Your task to perform on an android device: What's the weather? Image 0: 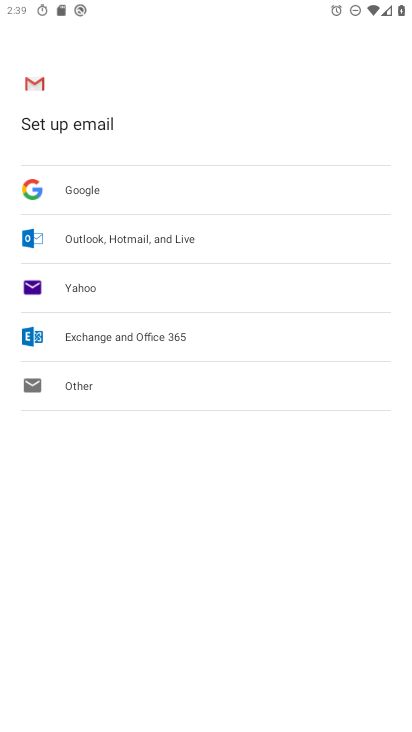
Step 0: press home button
Your task to perform on an android device: What's the weather? Image 1: 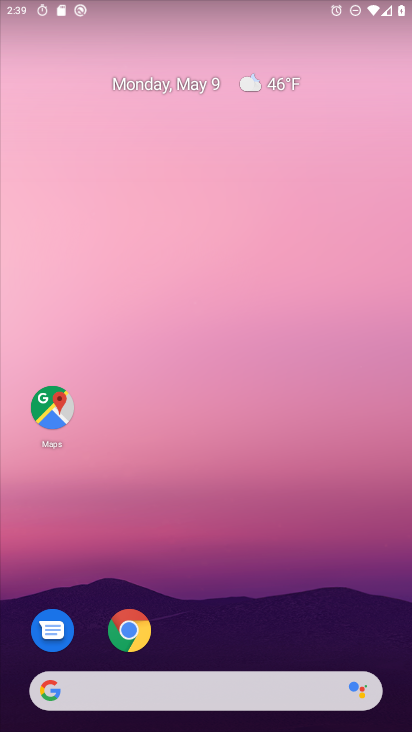
Step 1: drag from (317, 703) to (183, 148)
Your task to perform on an android device: What's the weather? Image 2: 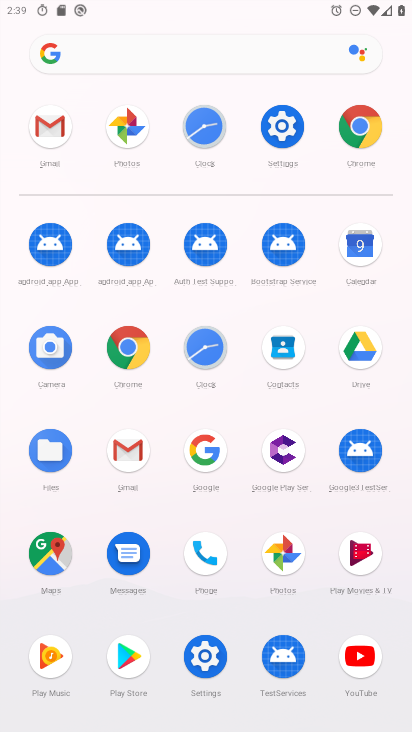
Step 2: click (142, 56)
Your task to perform on an android device: What's the weather? Image 3: 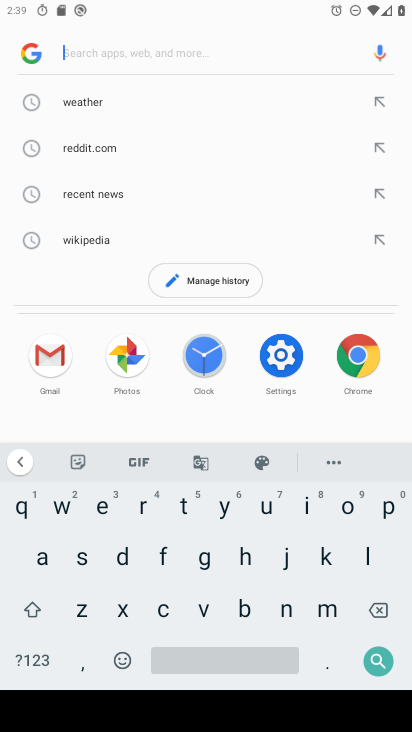
Step 3: click (123, 108)
Your task to perform on an android device: What's the weather? Image 4: 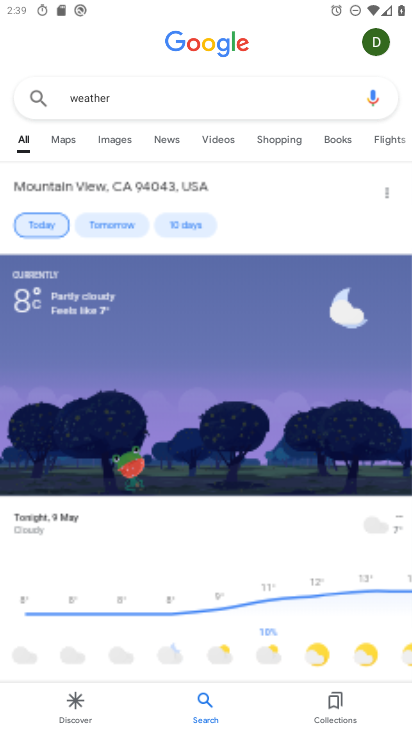
Step 4: task complete